Your task to perform on an android device: Search for alienware aurora on costco, select the first entry, add it to the cart, then select checkout. Image 0: 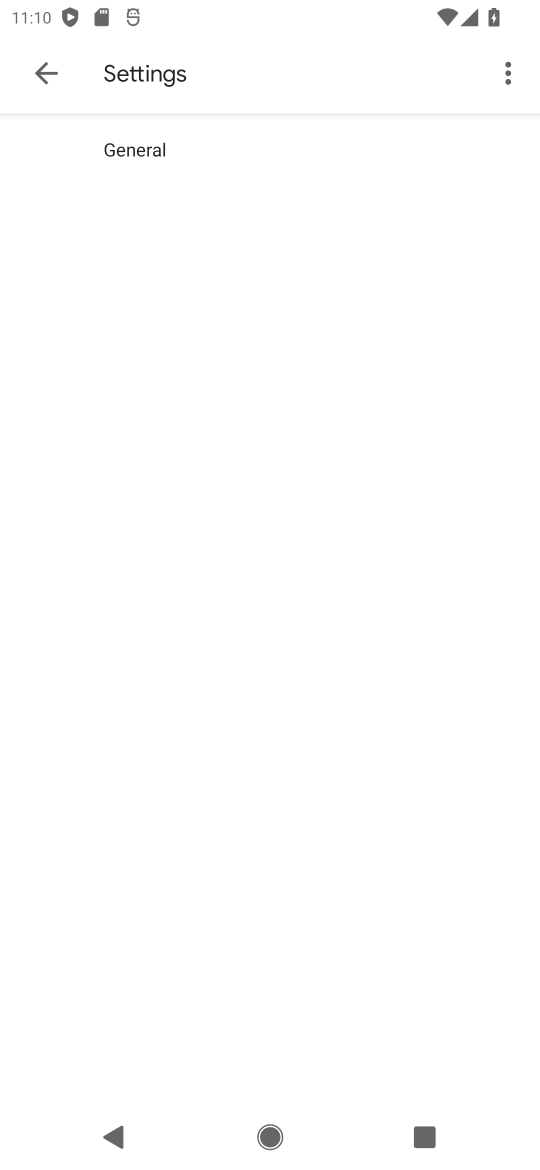
Step 0: press home button
Your task to perform on an android device: Search for alienware aurora on costco, select the first entry, add it to the cart, then select checkout. Image 1: 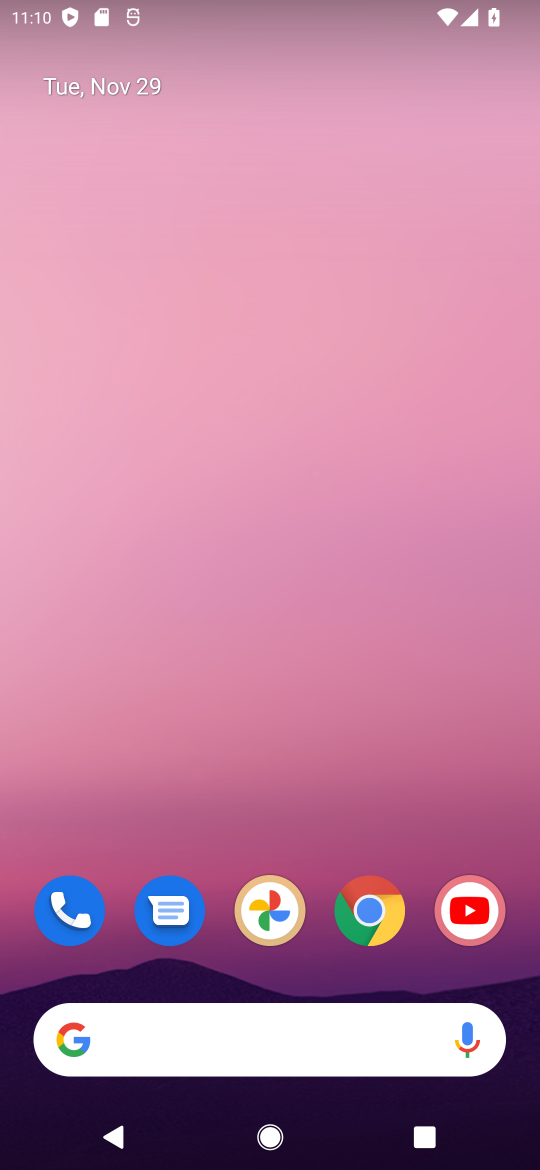
Step 1: click (367, 917)
Your task to perform on an android device: Search for alienware aurora on costco, select the first entry, add it to the cart, then select checkout. Image 2: 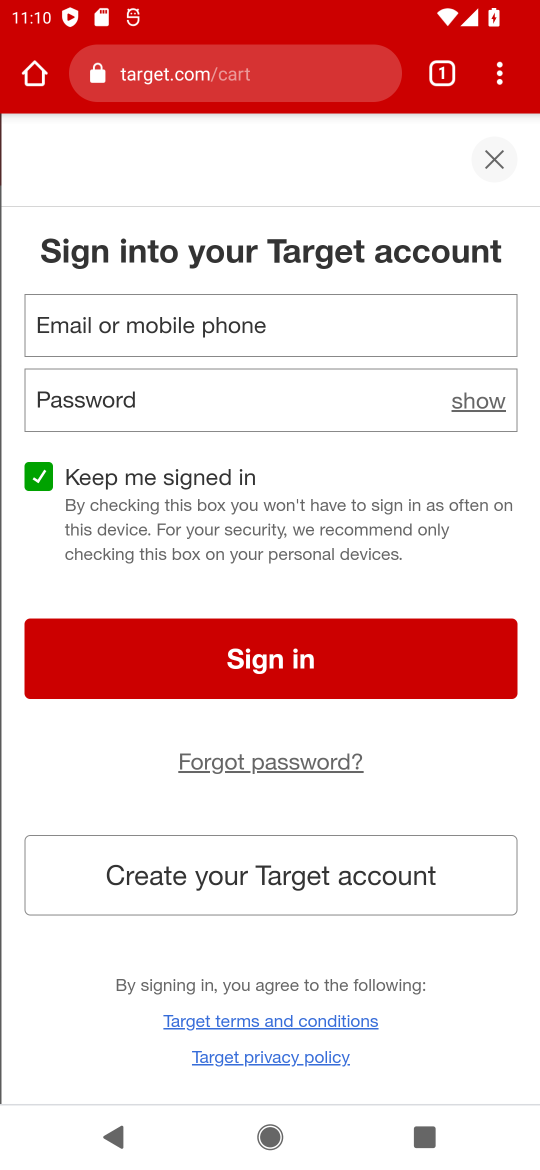
Step 2: click (181, 88)
Your task to perform on an android device: Search for alienware aurora on costco, select the first entry, add it to the cart, then select checkout. Image 3: 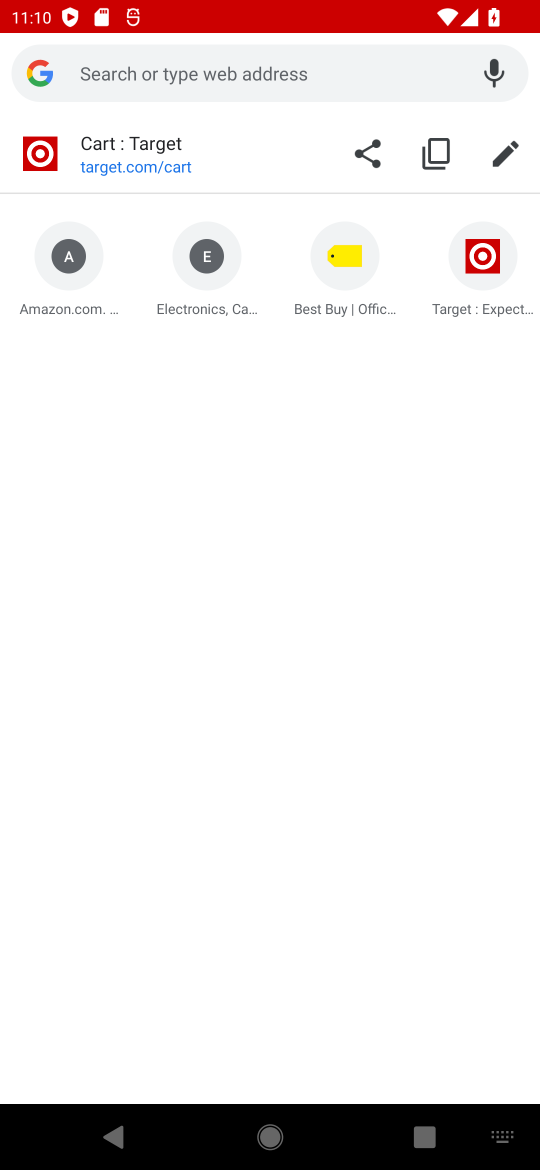
Step 3: type "costco.com"
Your task to perform on an android device: Search for alienware aurora on costco, select the first entry, add it to the cart, then select checkout. Image 4: 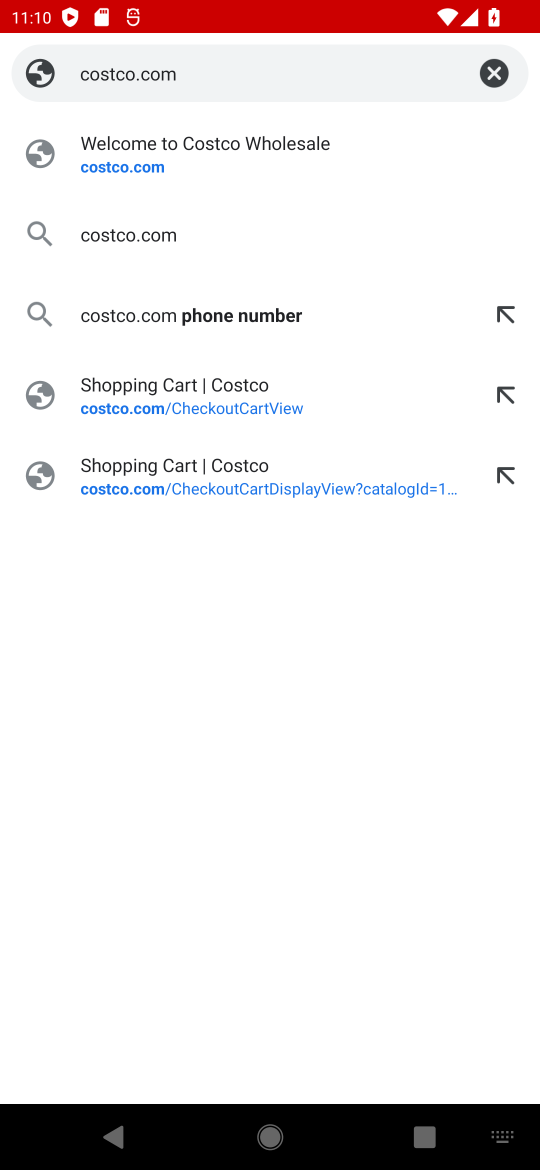
Step 4: click (102, 184)
Your task to perform on an android device: Search for alienware aurora on costco, select the first entry, add it to the cart, then select checkout. Image 5: 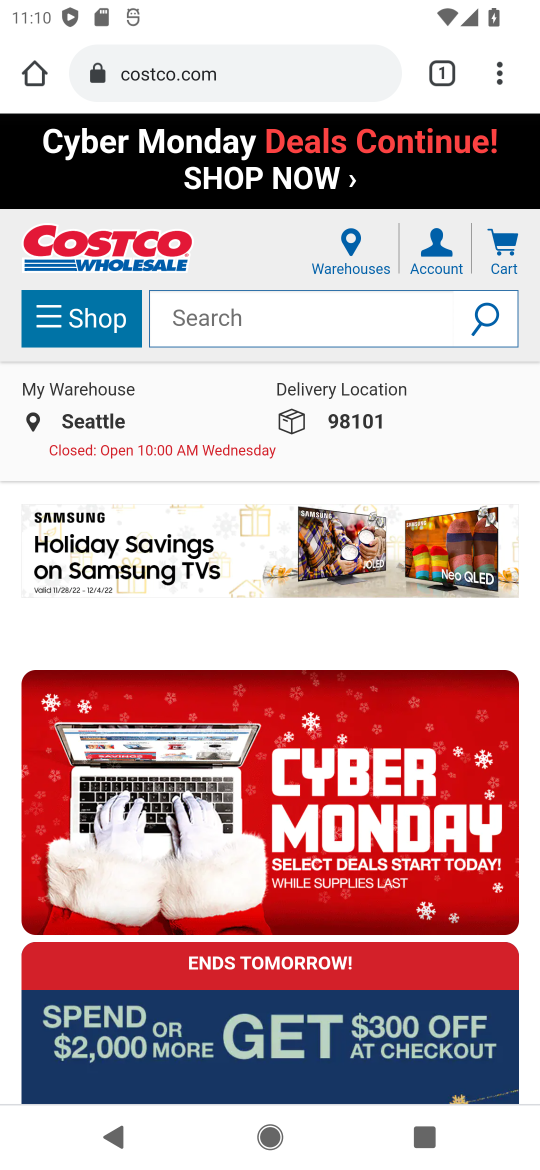
Step 5: click (216, 310)
Your task to perform on an android device: Search for alienware aurora on costco, select the first entry, add it to the cart, then select checkout. Image 6: 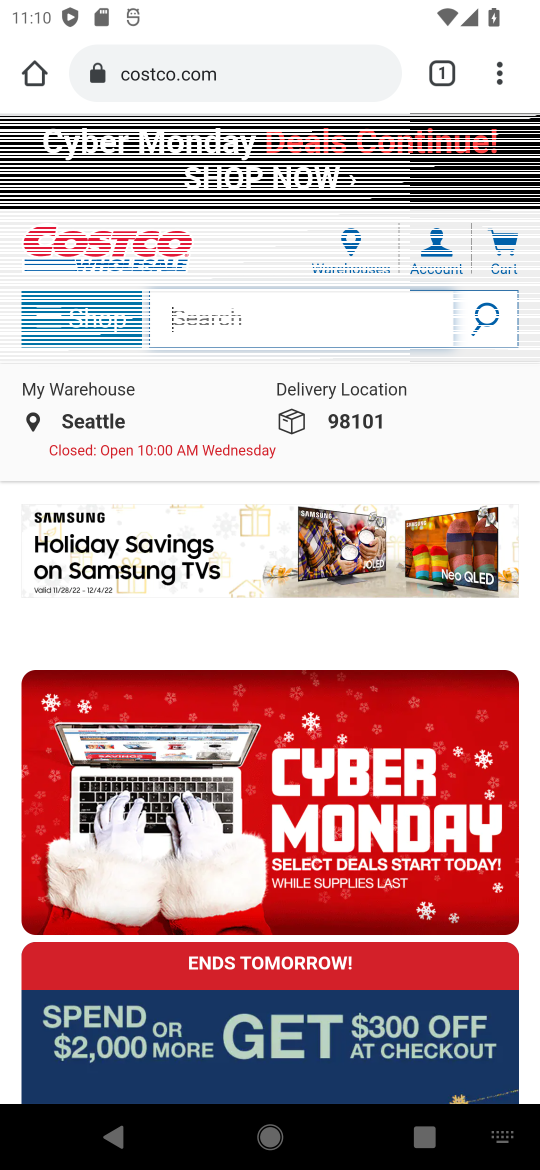
Step 6: type "alienware aurora"
Your task to perform on an android device: Search for alienware aurora on costco, select the first entry, add it to the cart, then select checkout. Image 7: 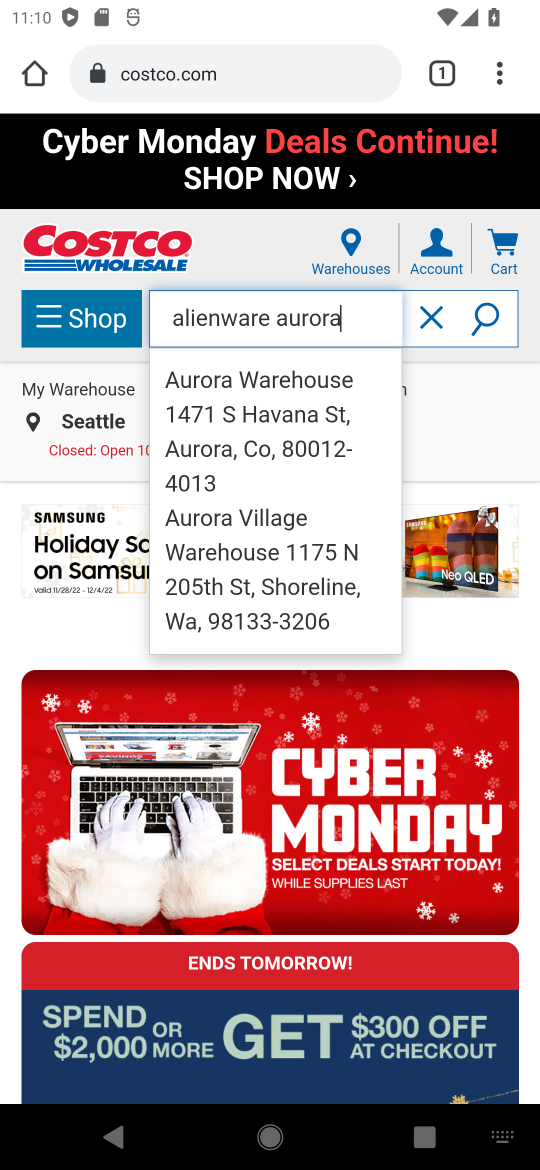
Step 7: click (488, 317)
Your task to perform on an android device: Search for alienware aurora on costco, select the first entry, add it to the cart, then select checkout. Image 8: 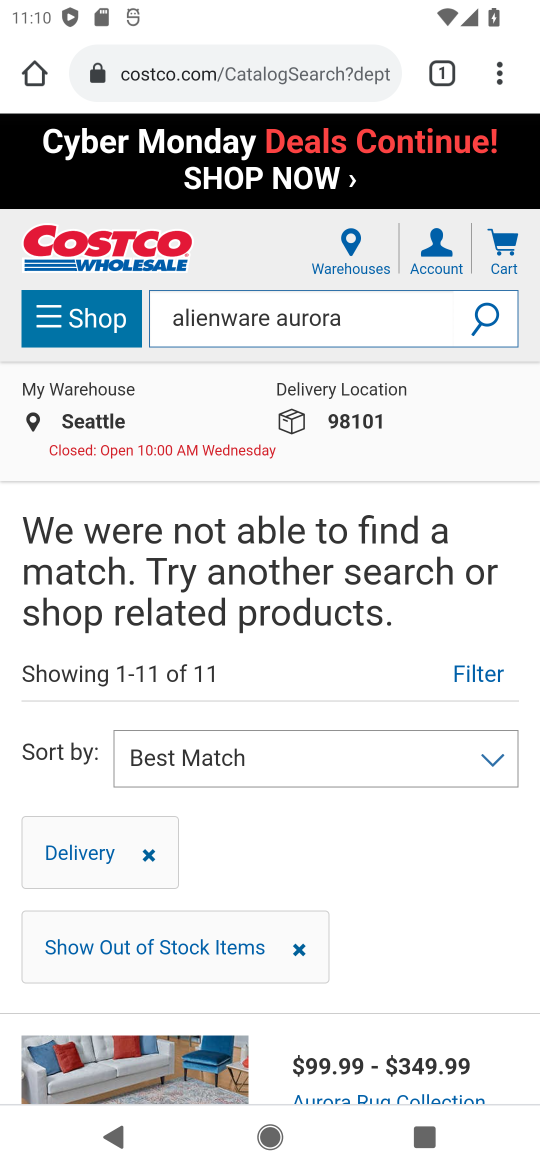
Step 8: task complete